Your task to perform on an android device: open wifi settings Image 0: 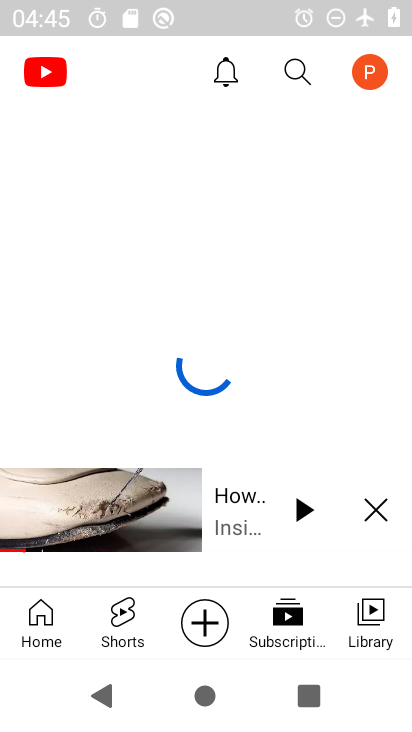
Step 0: drag from (104, 19) to (172, 597)
Your task to perform on an android device: open wifi settings Image 1: 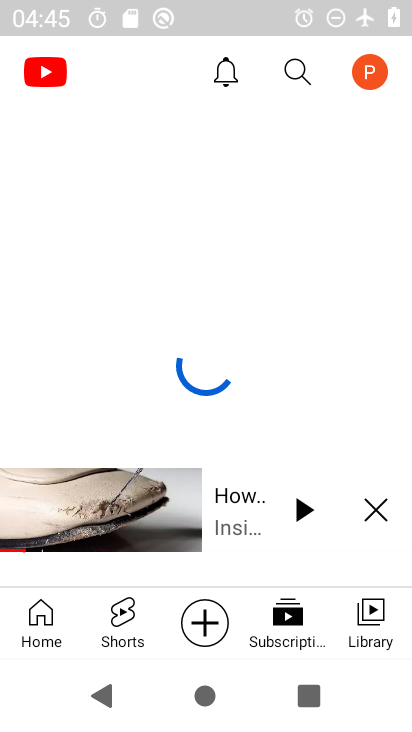
Step 1: press back button
Your task to perform on an android device: open wifi settings Image 2: 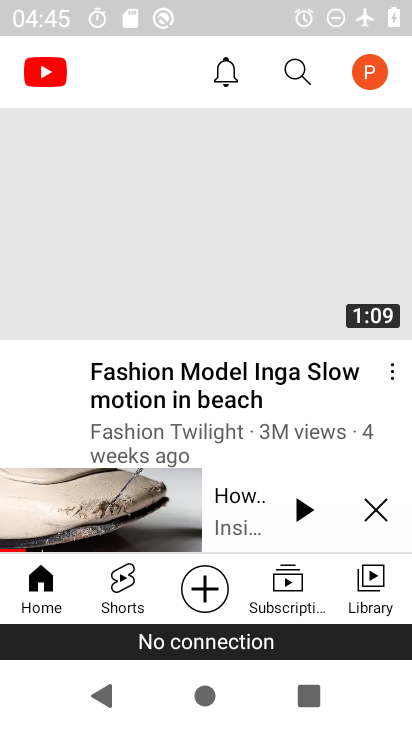
Step 2: click (46, 172)
Your task to perform on an android device: open wifi settings Image 3: 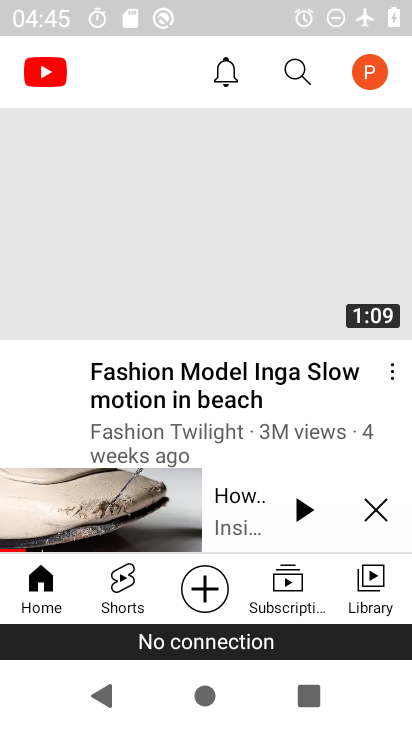
Step 3: press back button
Your task to perform on an android device: open wifi settings Image 4: 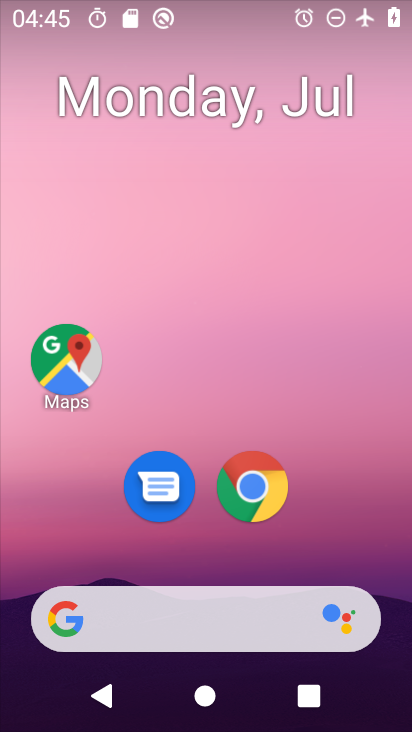
Step 4: task complete
Your task to perform on an android device: open wifi settings Image 5: 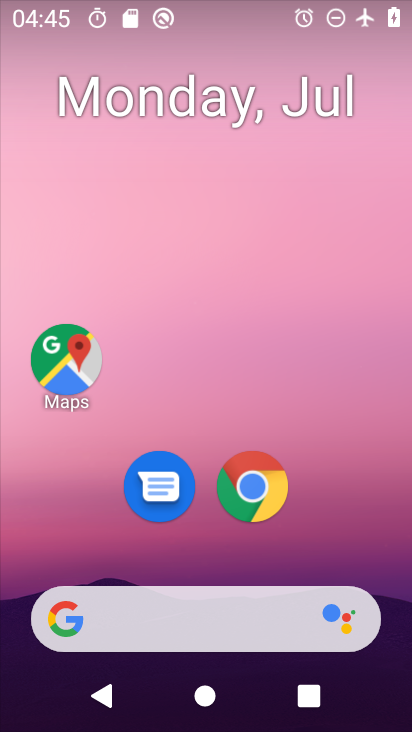
Step 5: drag from (135, 13) to (230, 619)
Your task to perform on an android device: open wifi settings Image 6: 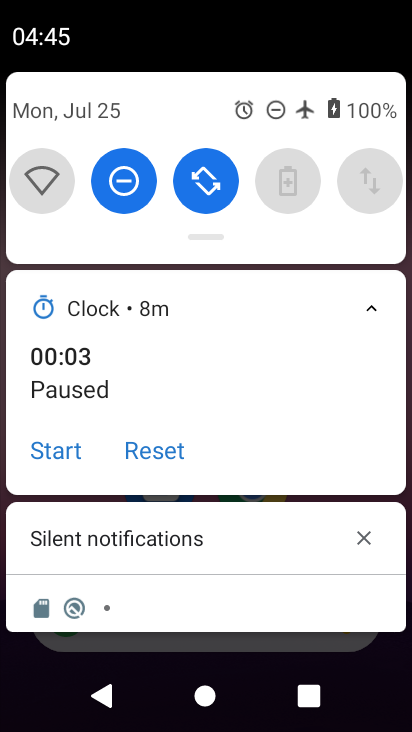
Step 6: click (49, 195)
Your task to perform on an android device: open wifi settings Image 7: 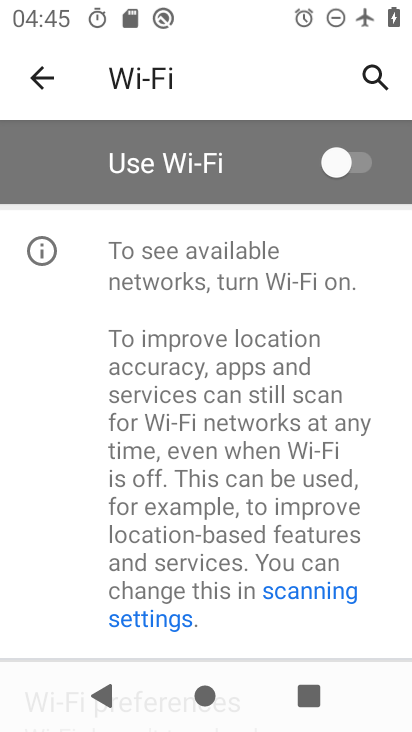
Step 7: task complete